Your task to perform on an android device: all mails in gmail Image 0: 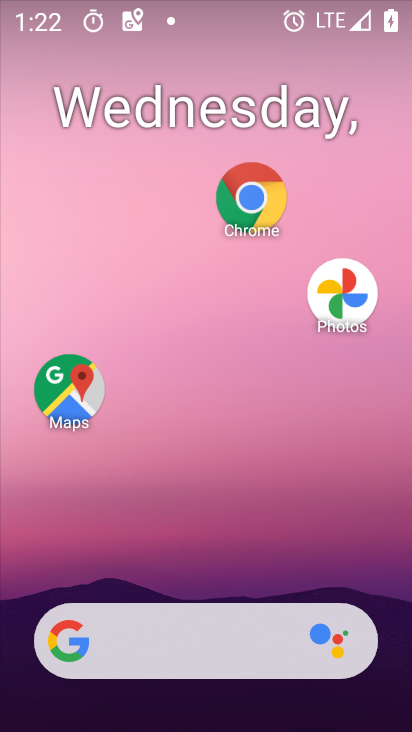
Step 0: drag from (249, 647) to (151, 89)
Your task to perform on an android device: all mails in gmail Image 1: 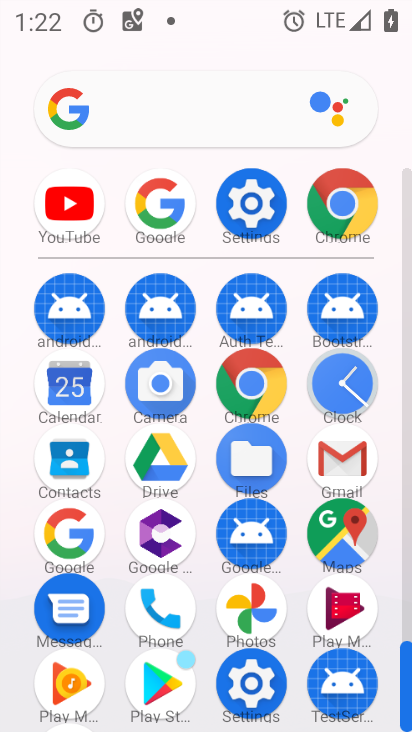
Step 1: click (321, 466)
Your task to perform on an android device: all mails in gmail Image 2: 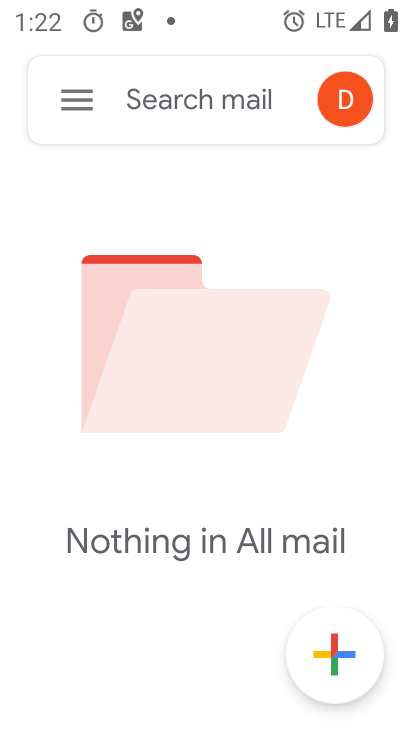
Step 2: click (75, 116)
Your task to perform on an android device: all mails in gmail Image 3: 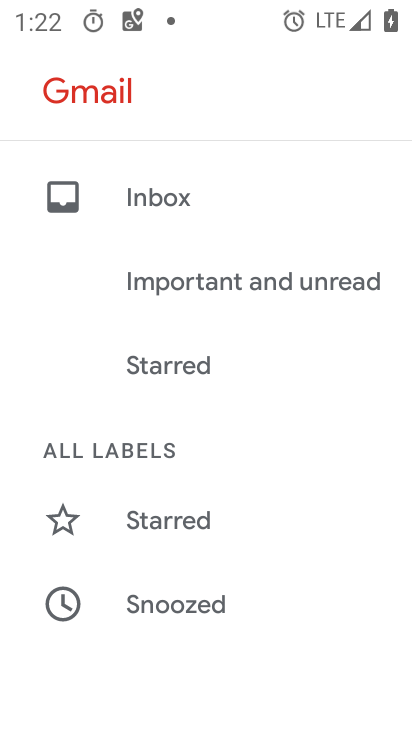
Step 3: drag from (259, 527) to (153, 12)
Your task to perform on an android device: all mails in gmail Image 4: 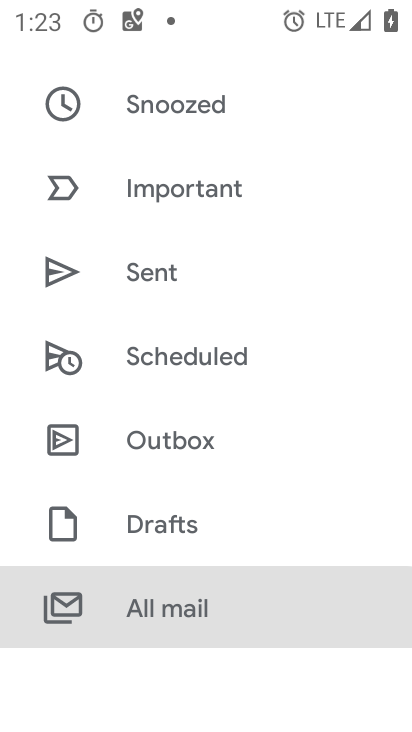
Step 4: click (198, 600)
Your task to perform on an android device: all mails in gmail Image 5: 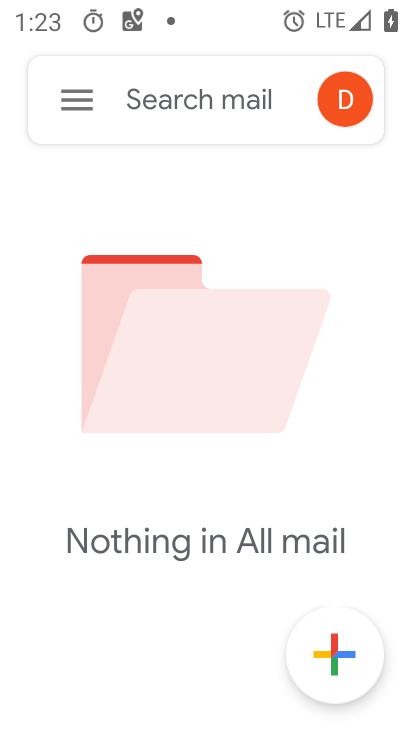
Step 5: task complete